Your task to perform on an android device: Do I have any events today? Image 0: 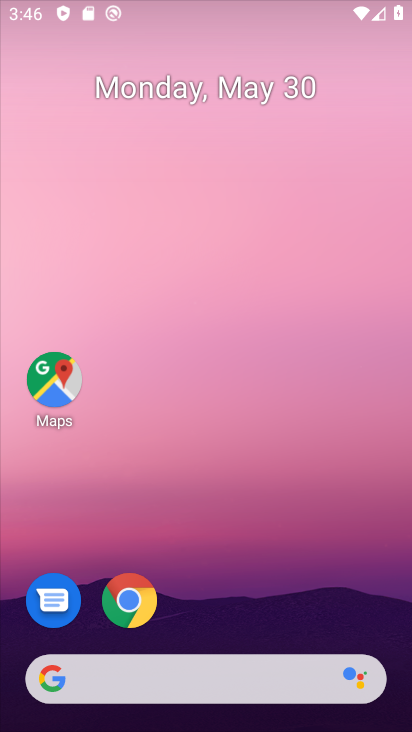
Step 0: drag from (215, 602) to (222, 123)
Your task to perform on an android device: Do I have any events today? Image 1: 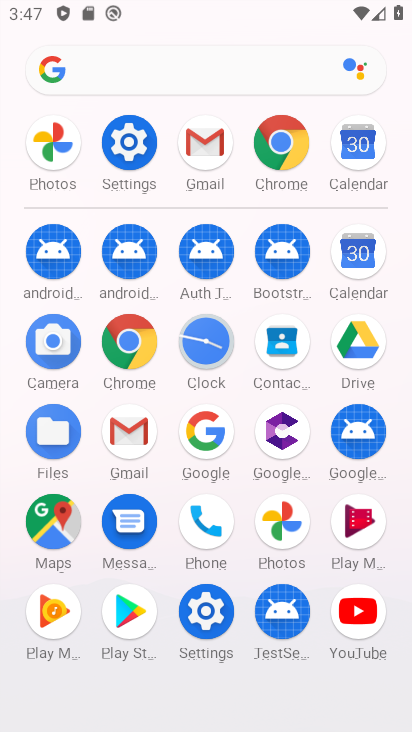
Step 1: click (366, 151)
Your task to perform on an android device: Do I have any events today? Image 2: 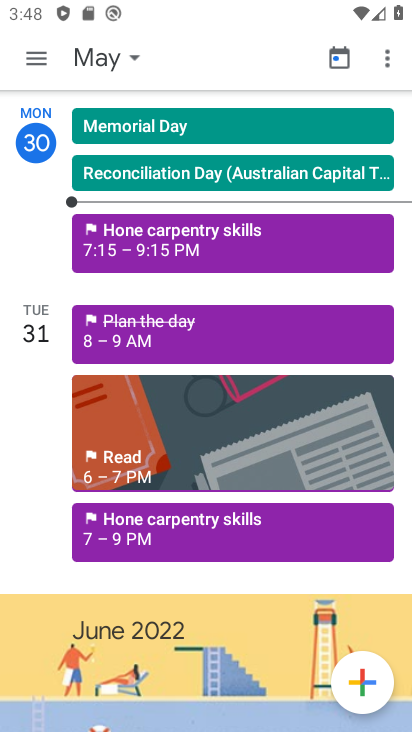
Step 2: task complete